Your task to perform on an android device: check google app version Image 0: 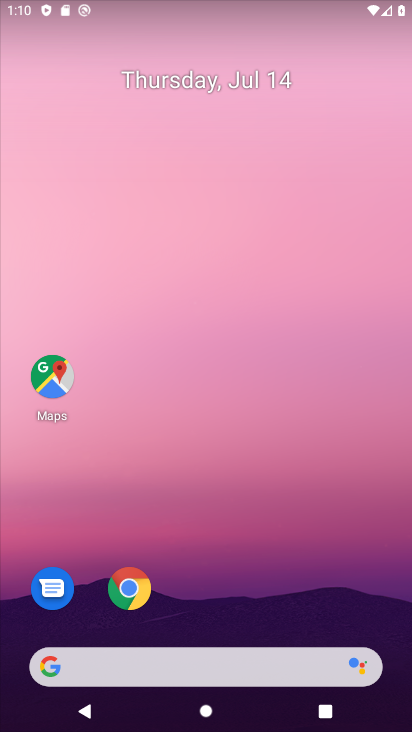
Step 0: drag from (245, 693) to (205, 175)
Your task to perform on an android device: check google app version Image 1: 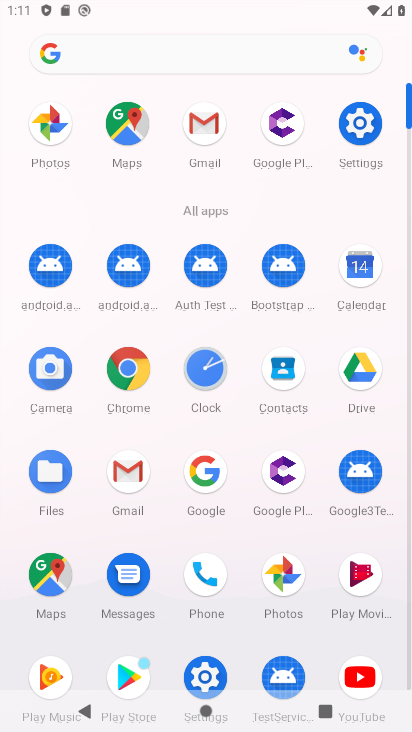
Step 1: click (217, 482)
Your task to perform on an android device: check google app version Image 2: 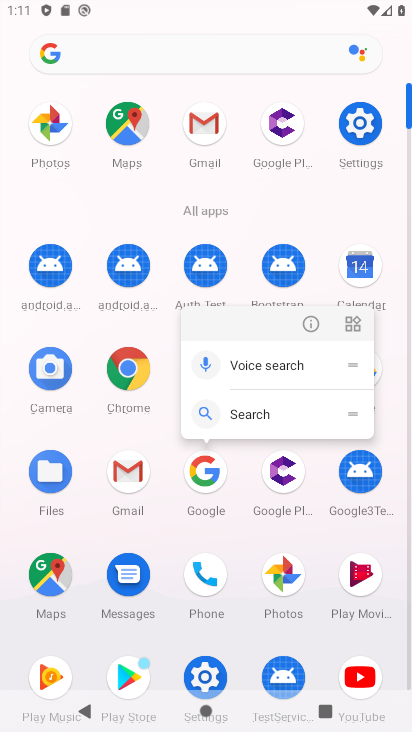
Step 2: click (316, 315)
Your task to perform on an android device: check google app version Image 3: 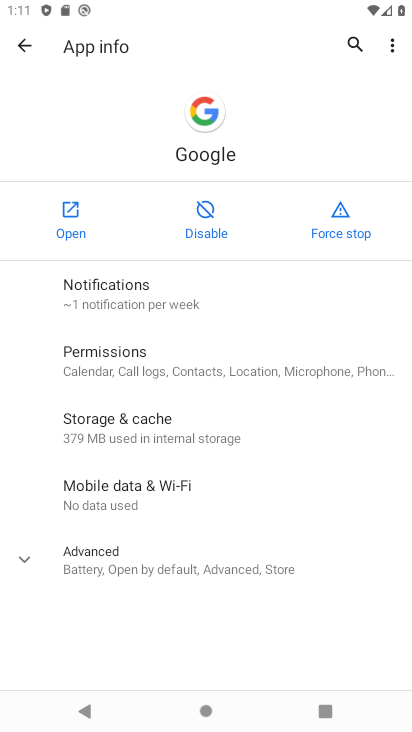
Step 3: click (222, 563)
Your task to perform on an android device: check google app version Image 4: 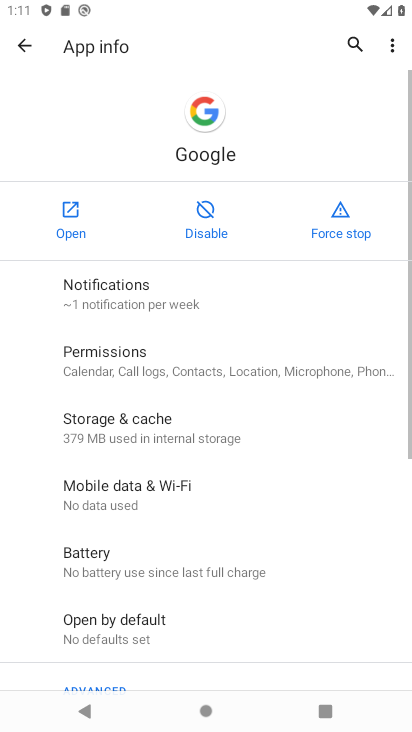
Step 4: task complete